Your task to perform on an android device: open app "Walmart Shopping & Grocery" Image 0: 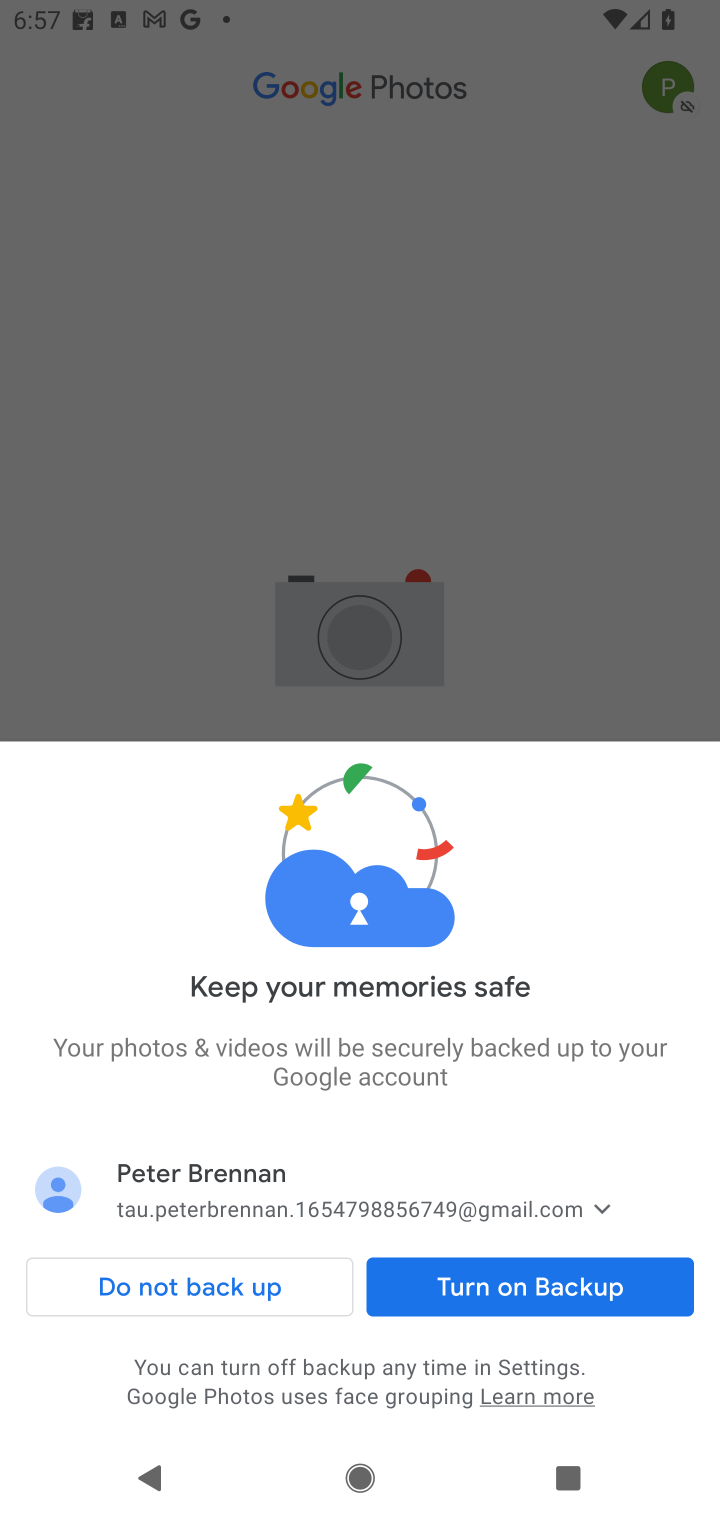
Step 0: press home button
Your task to perform on an android device: open app "Walmart Shopping & Grocery" Image 1: 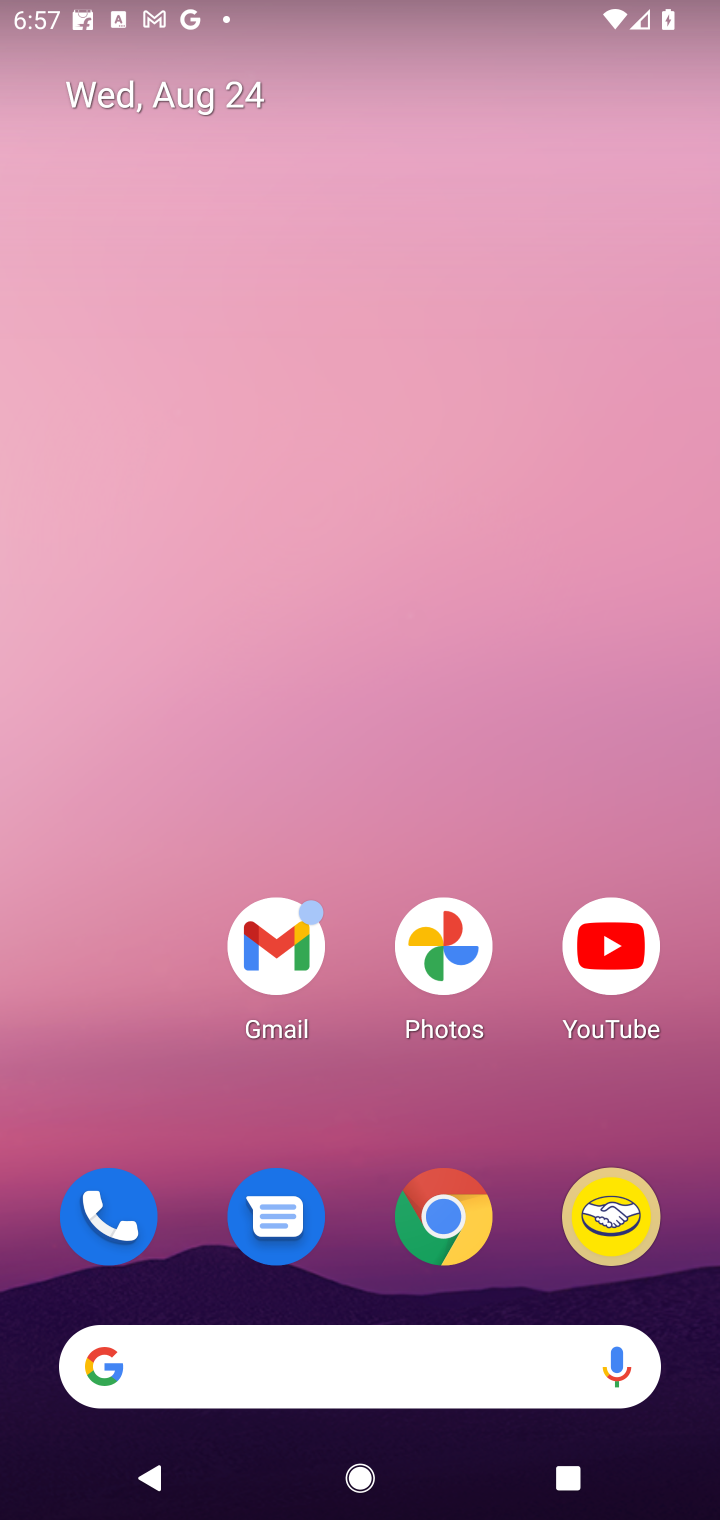
Step 1: drag from (347, 1082) to (357, 341)
Your task to perform on an android device: open app "Walmart Shopping & Grocery" Image 2: 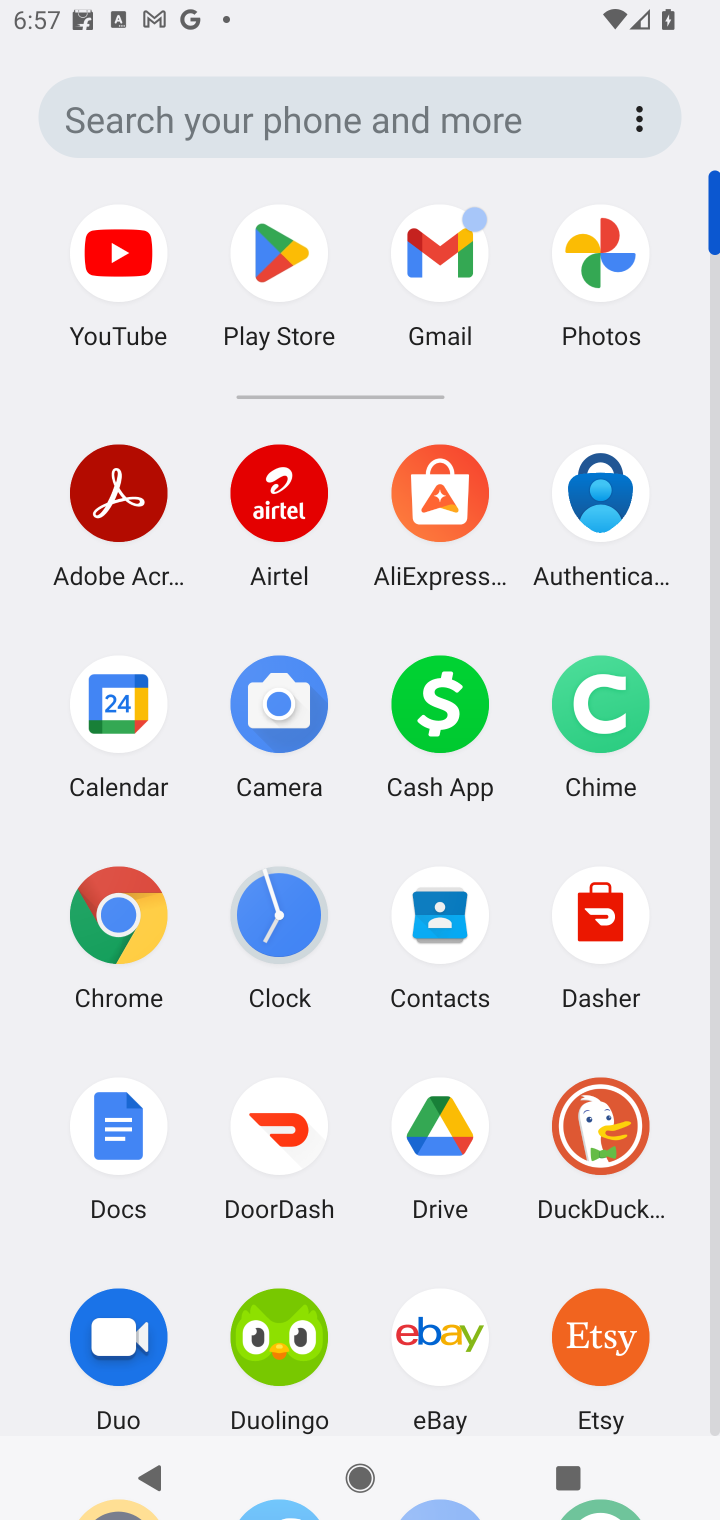
Step 2: click (264, 234)
Your task to perform on an android device: open app "Walmart Shopping & Grocery" Image 3: 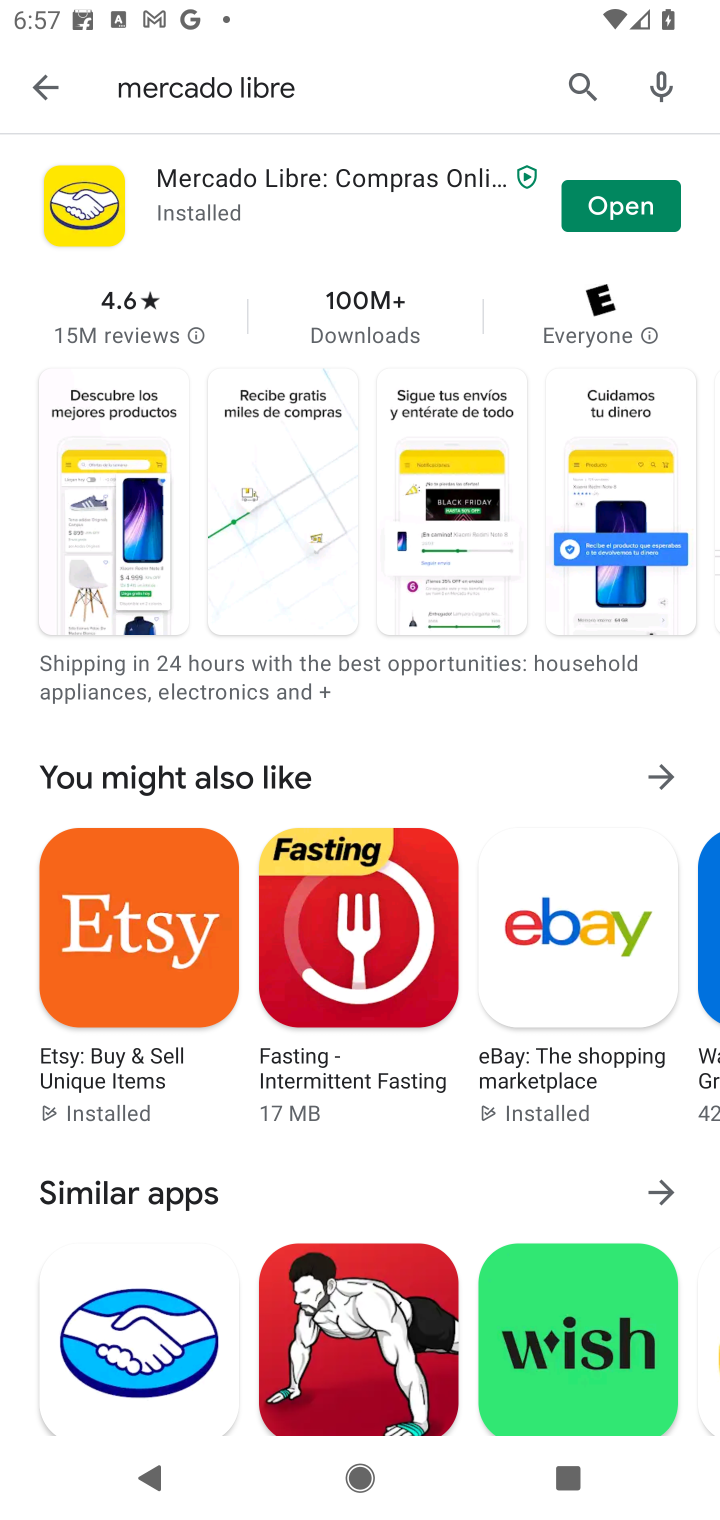
Step 3: click (574, 90)
Your task to perform on an android device: open app "Walmart Shopping & Grocery" Image 4: 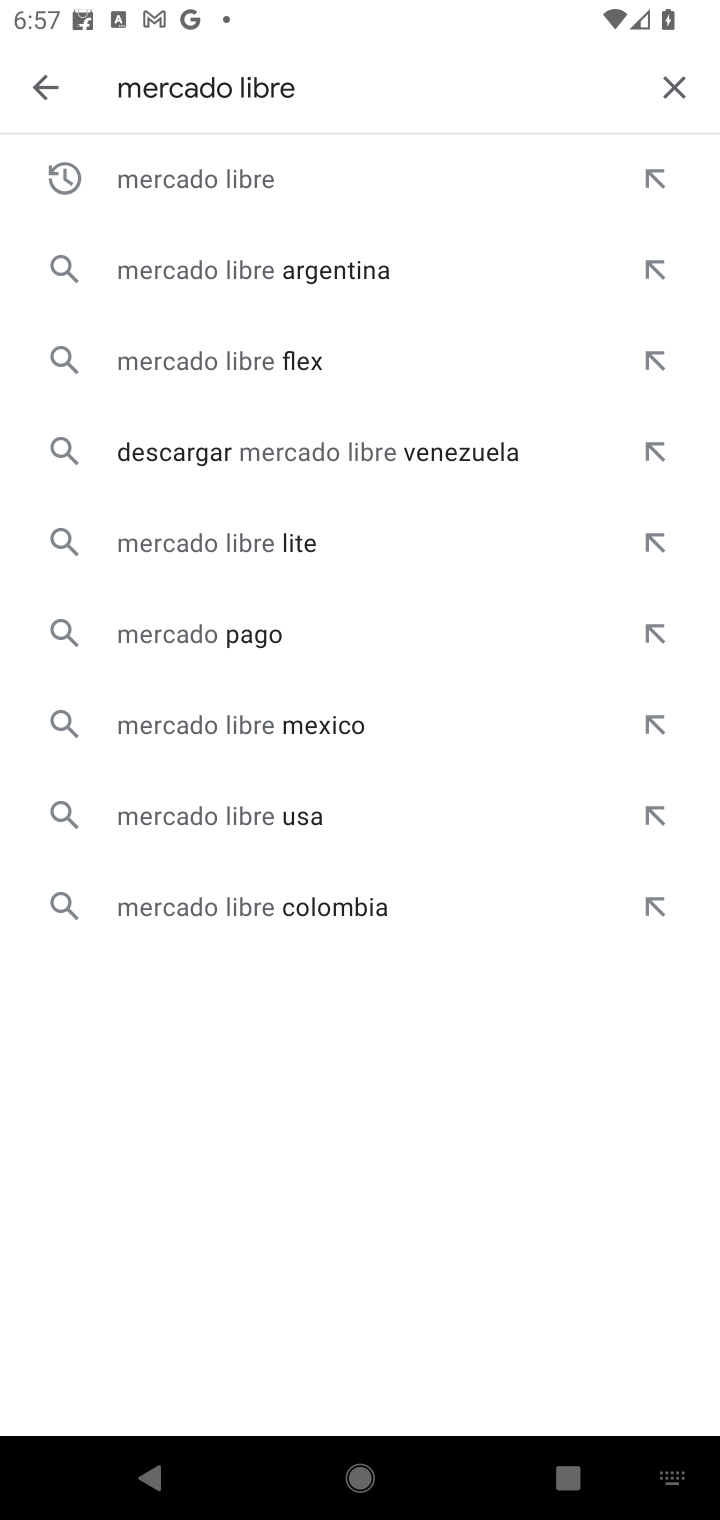
Step 4: click (679, 80)
Your task to perform on an android device: open app "Walmart Shopping & Grocery" Image 5: 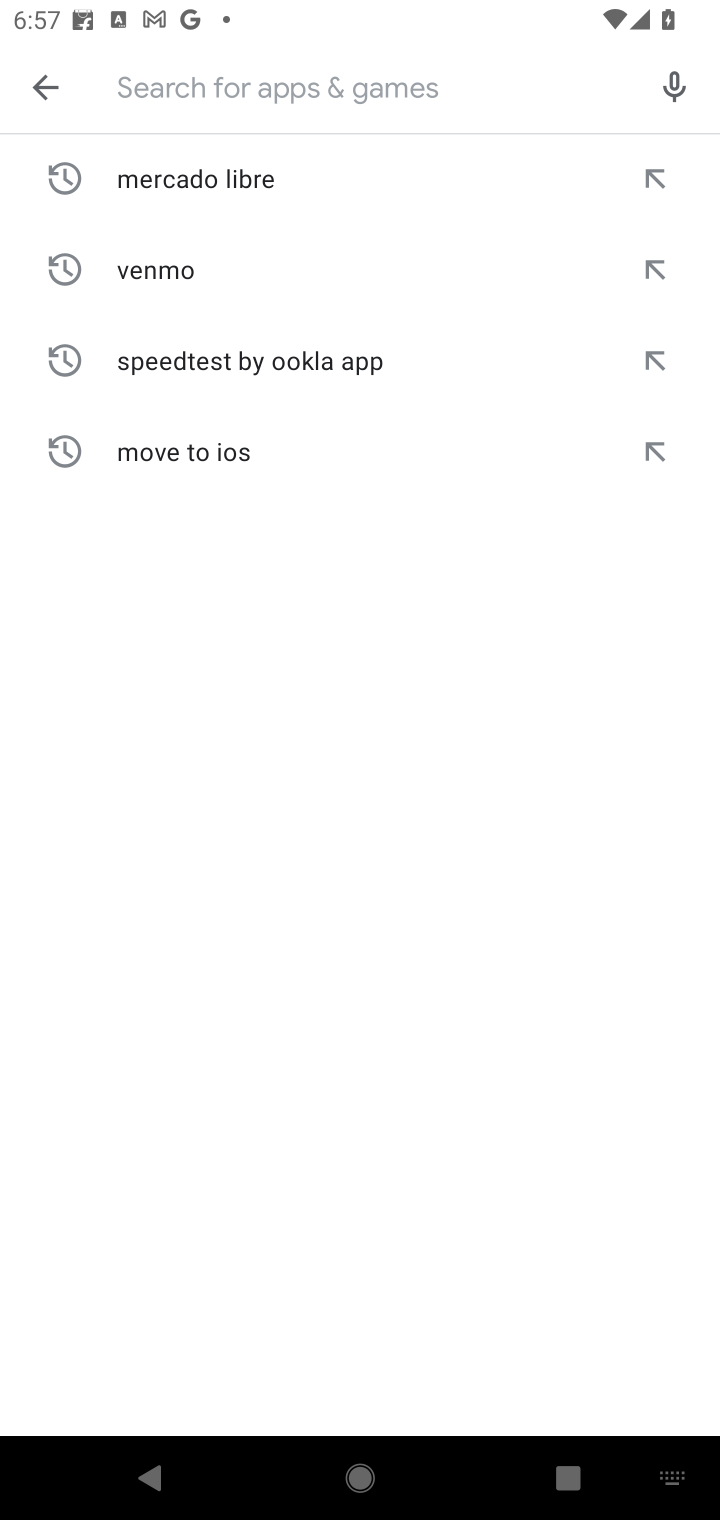
Step 5: press home button
Your task to perform on an android device: open app "Walmart Shopping & Grocery" Image 6: 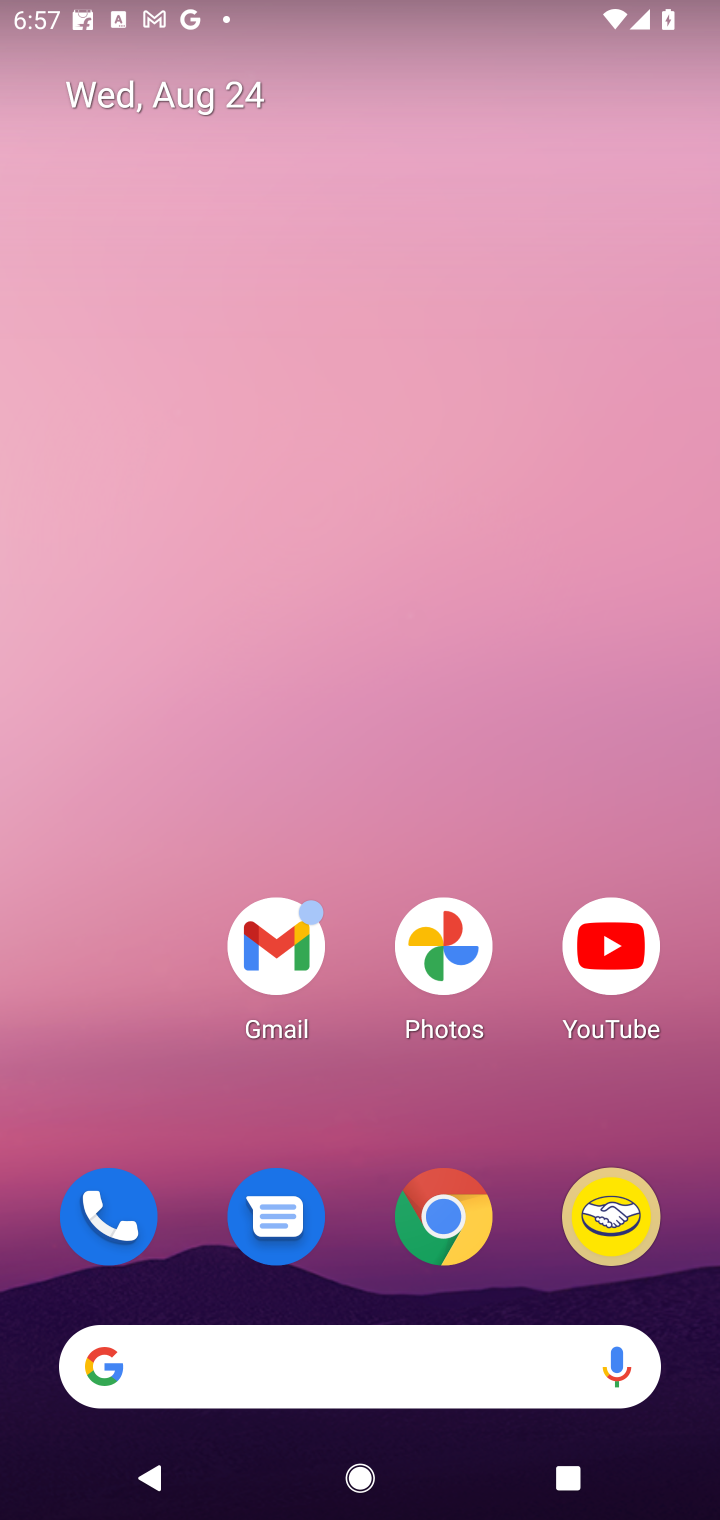
Step 6: drag from (326, 851) to (316, 243)
Your task to perform on an android device: open app "Walmart Shopping & Grocery" Image 7: 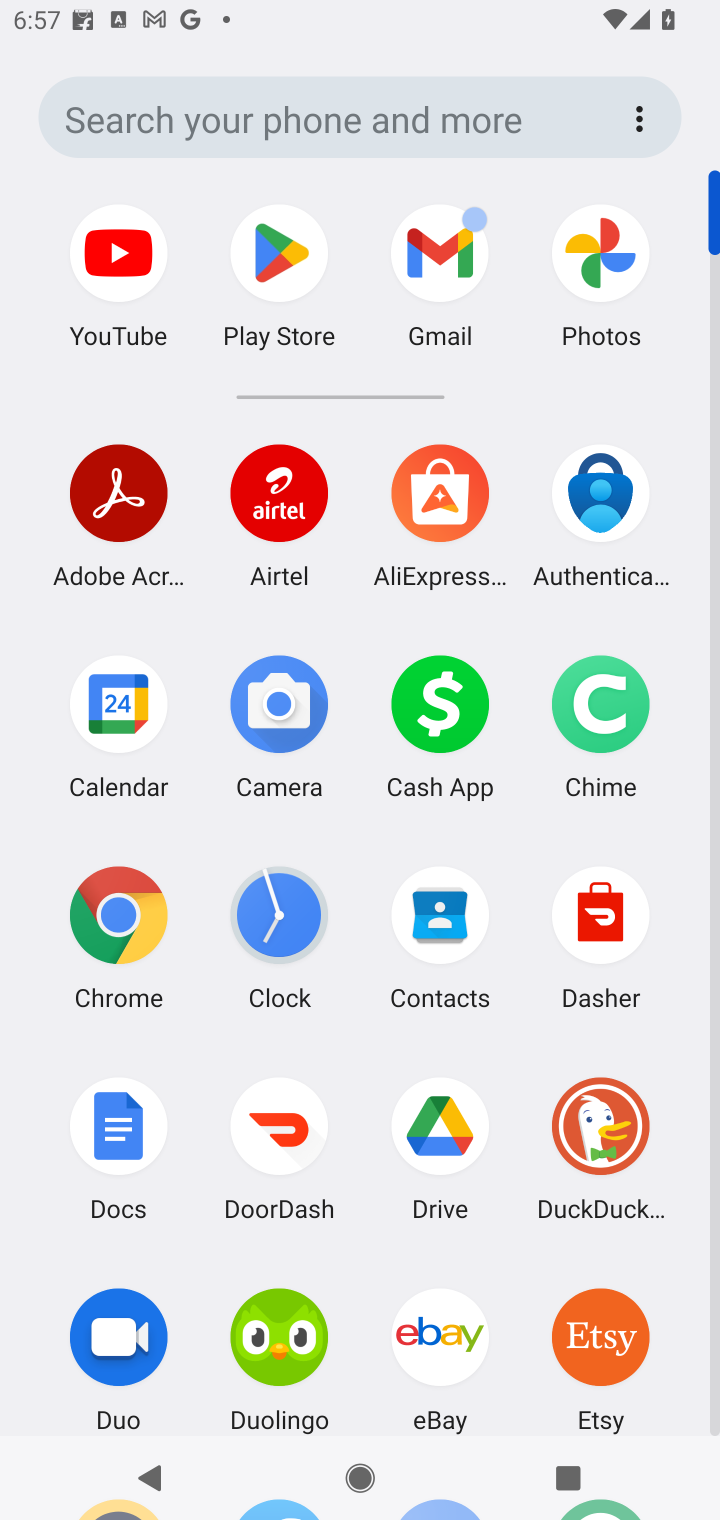
Step 7: click (283, 263)
Your task to perform on an android device: open app "Walmart Shopping & Grocery" Image 8: 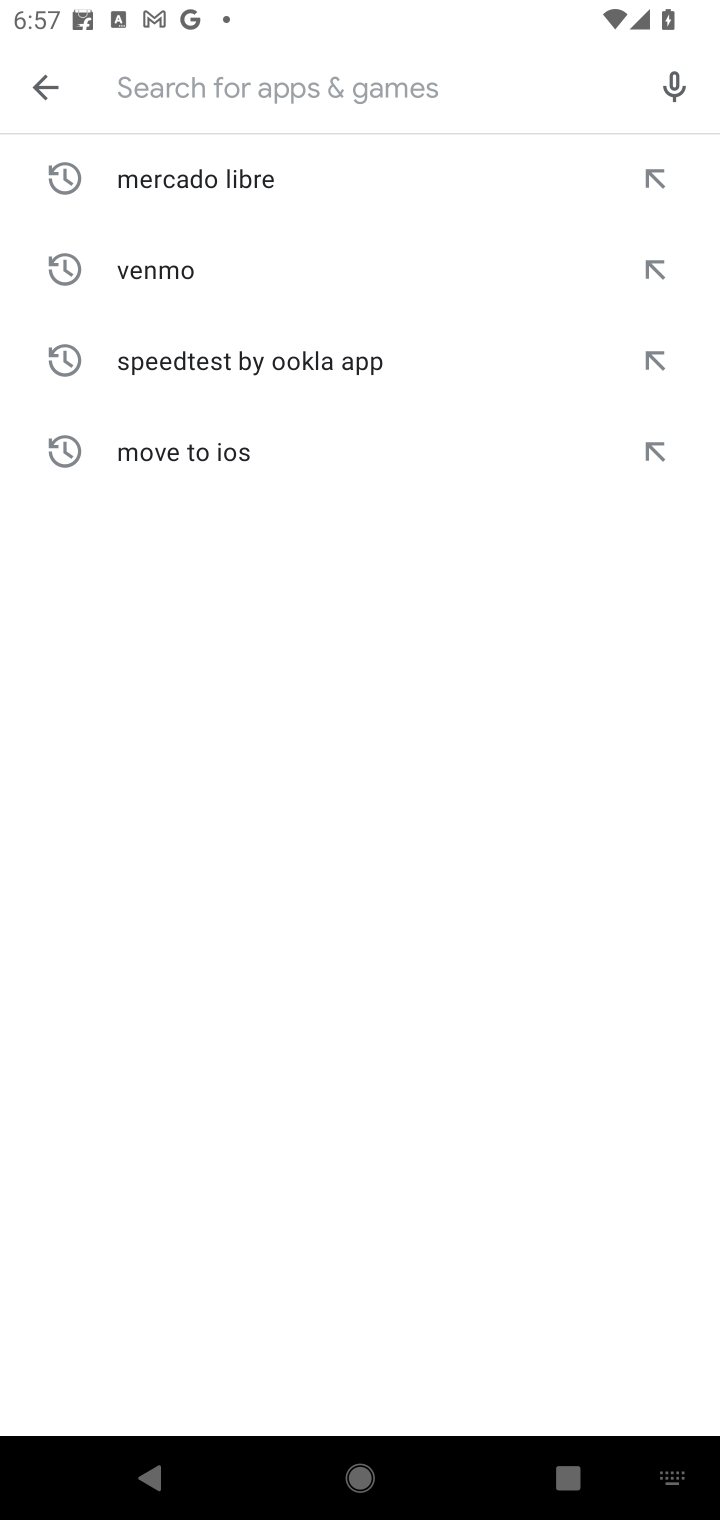
Step 8: type "Walmart Shopping & Grocery"
Your task to perform on an android device: open app "Walmart Shopping & Grocery" Image 9: 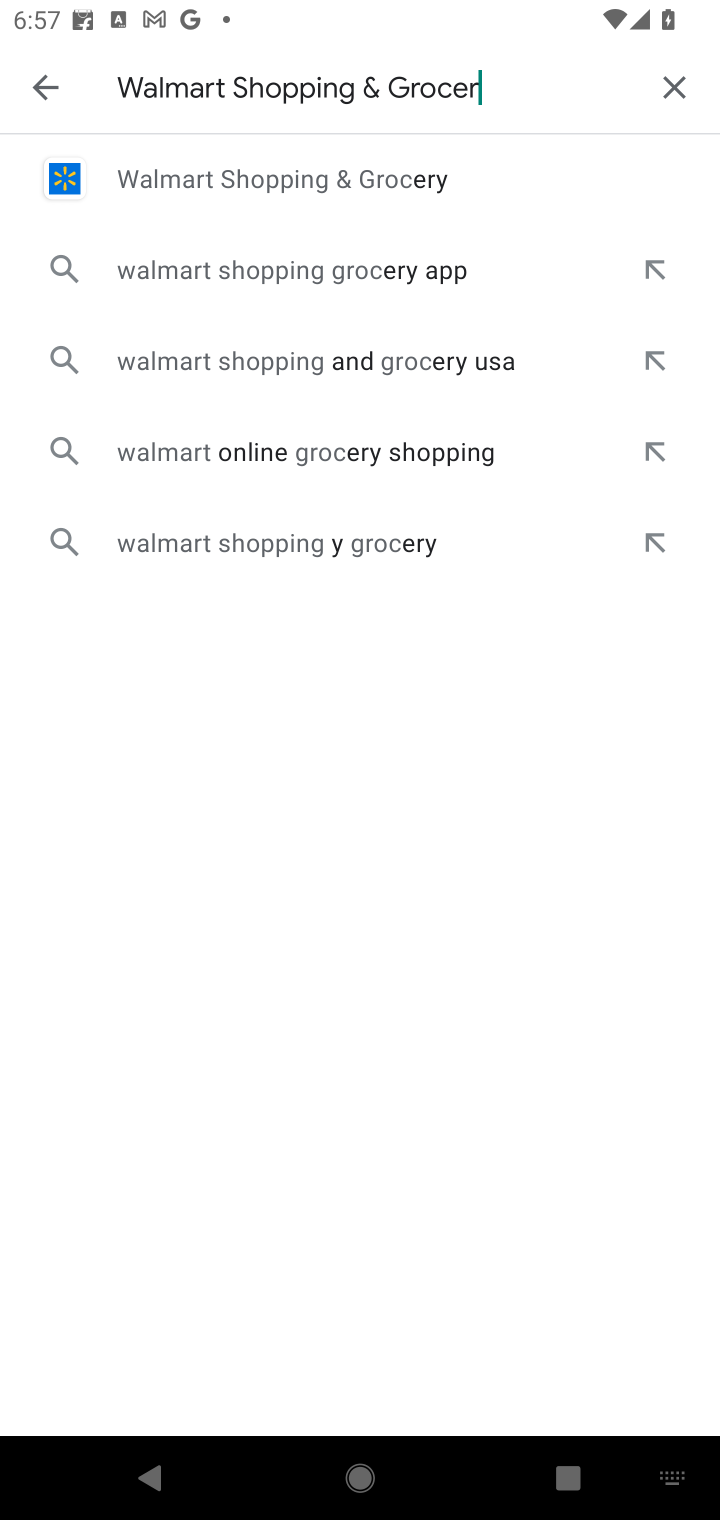
Step 9: type ""
Your task to perform on an android device: open app "Walmart Shopping & Grocery" Image 10: 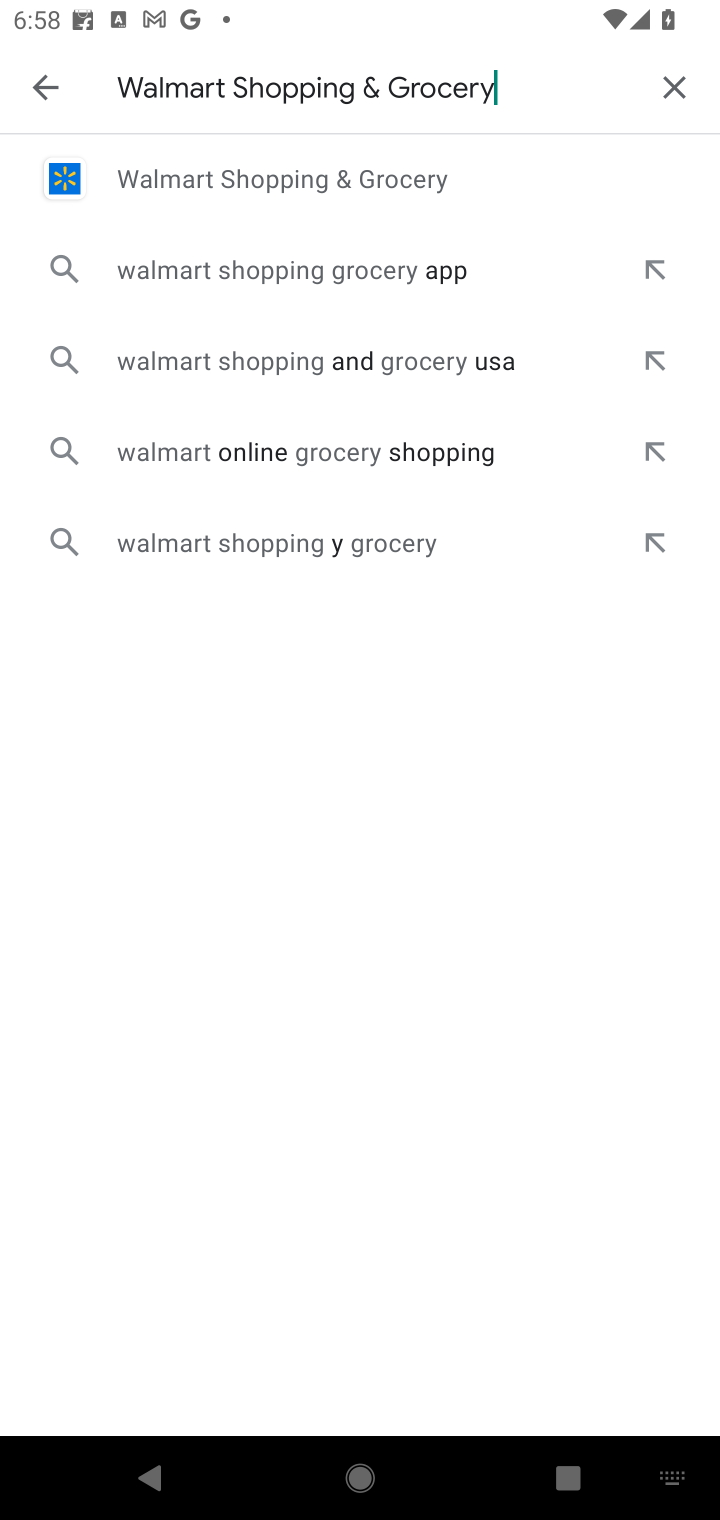
Step 10: click (257, 184)
Your task to perform on an android device: open app "Walmart Shopping & Grocery" Image 11: 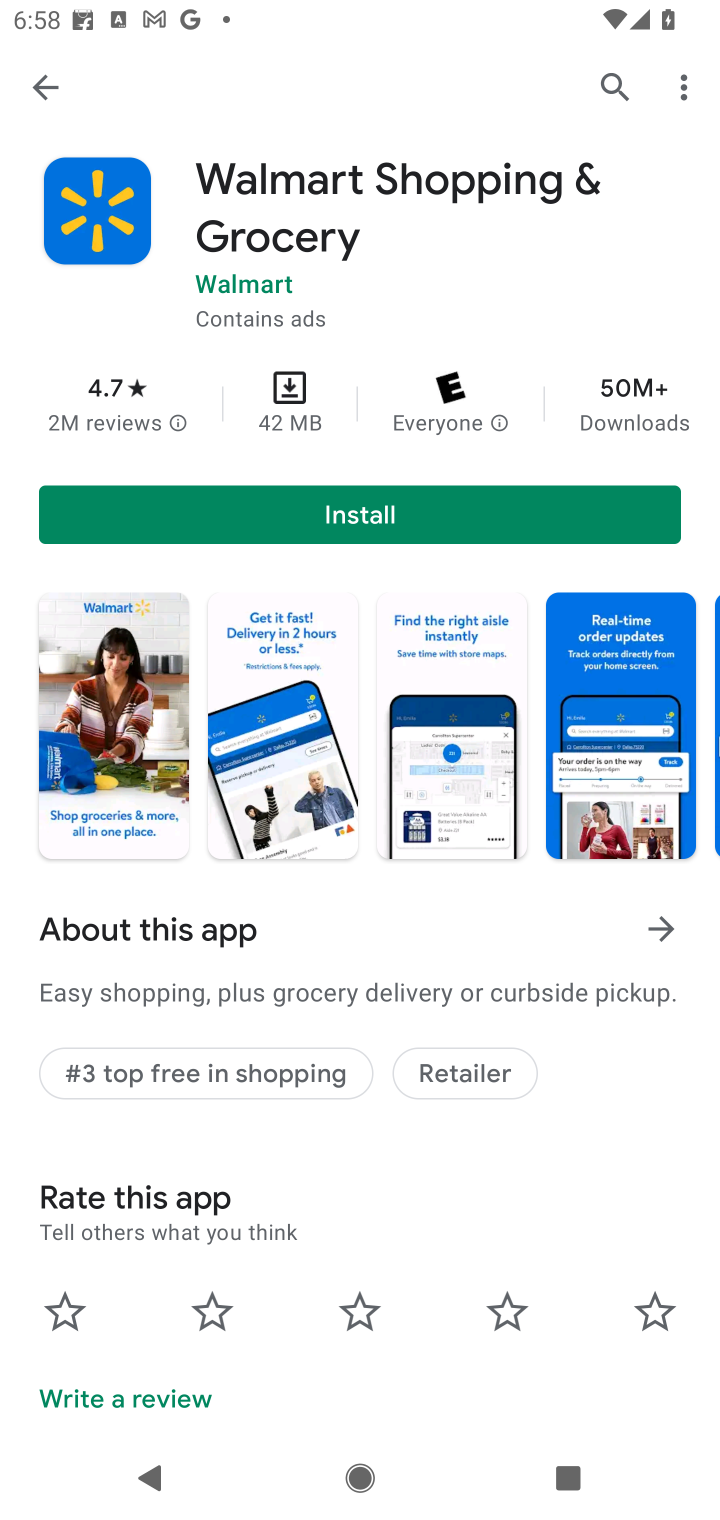
Step 11: task complete